Your task to perform on an android device: Open calendar and show me the first week of next month Image 0: 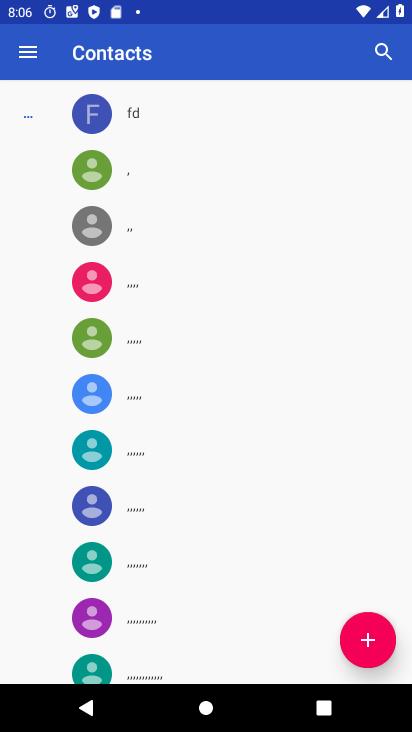
Step 0: press home button
Your task to perform on an android device: Open calendar and show me the first week of next month Image 1: 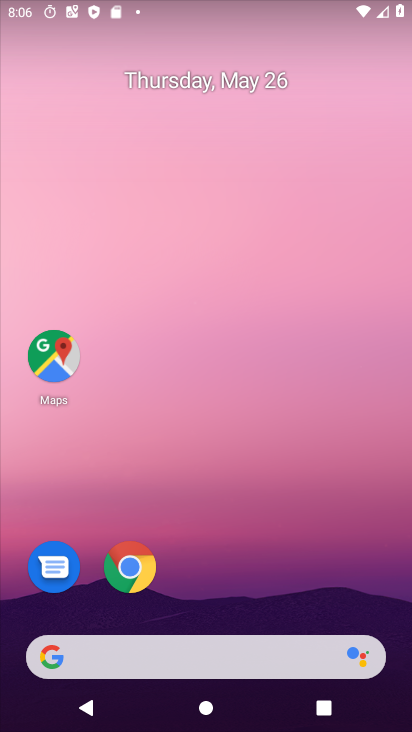
Step 1: drag from (192, 654) to (315, 75)
Your task to perform on an android device: Open calendar and show me the first week of next month Image 2: 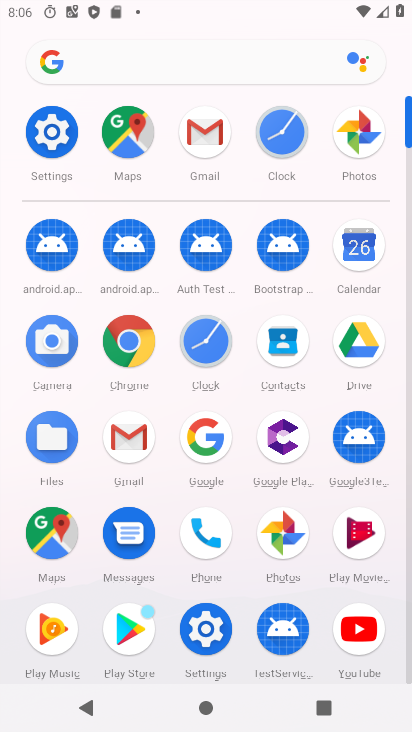
Step 2: click (363, 258)
Your task to perform on an android device: Open calendar and show me the first week of next month Image 3: 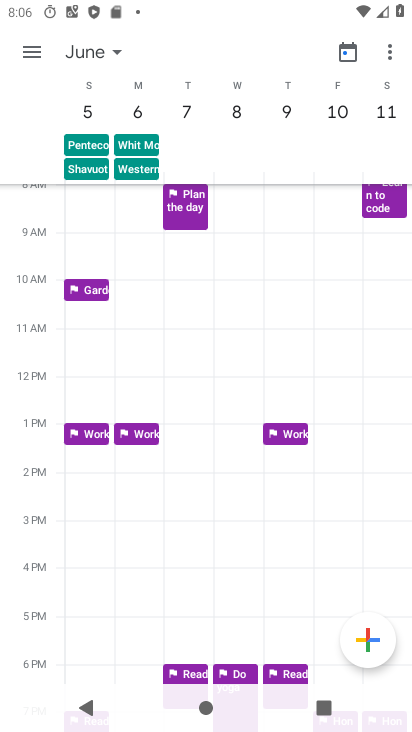
Step 3: click (86, 49)
Your task to perform on an android device: Open calendar and show me the first week of next month Image 4: 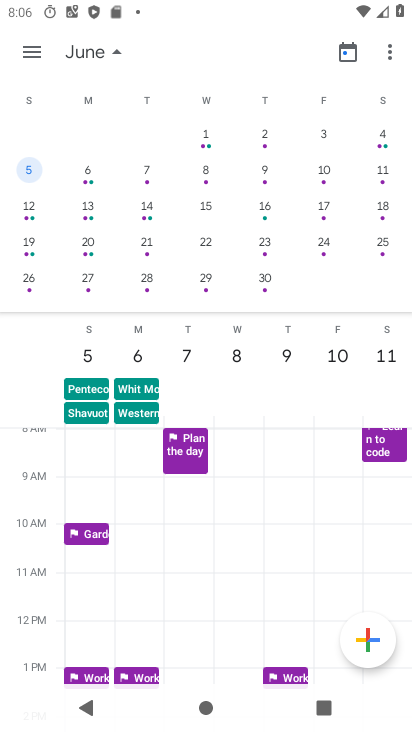
Step 4: click (199, 130)
Your task to perform on an android device: Open calendar and show me the first week of next month Image 5: 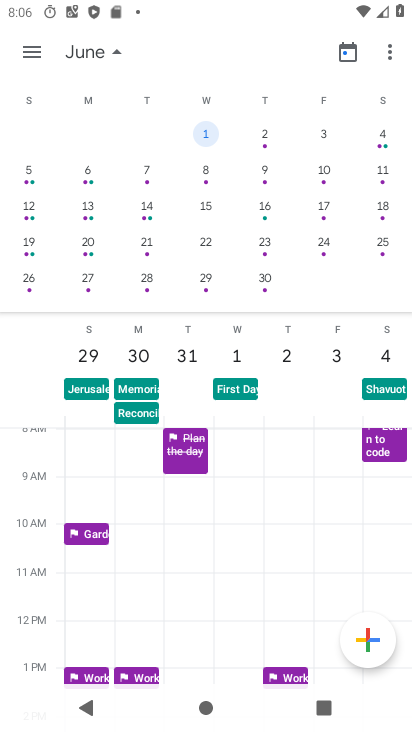
Step 5: click (28, 50)
Your task to perform on an android device: Open calendar and show me the first week of next month Image 6: 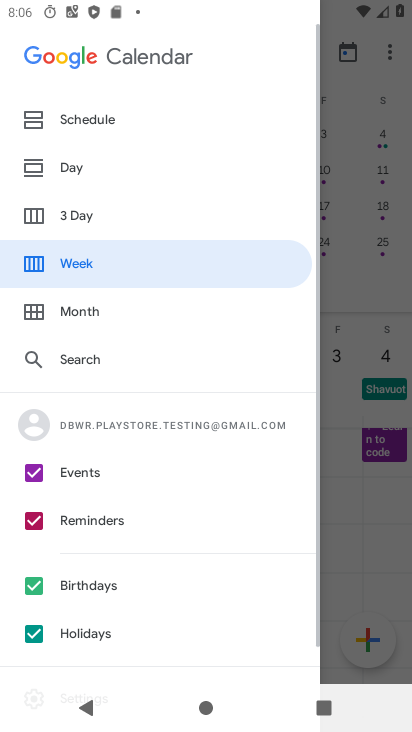
Step 6: click (89, 257)
Your task to perform on an android device: Open calendar and show me the first week of next month Image 7: 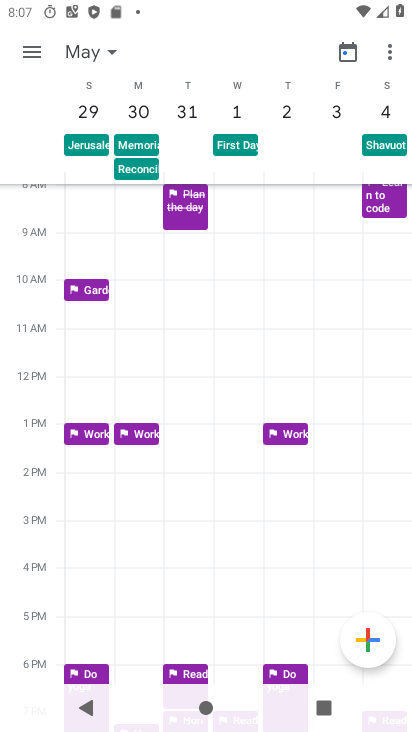
Step 7: task complete